Your task to perform on an android device: Open Youtube and go to "Your channel" Image 0: 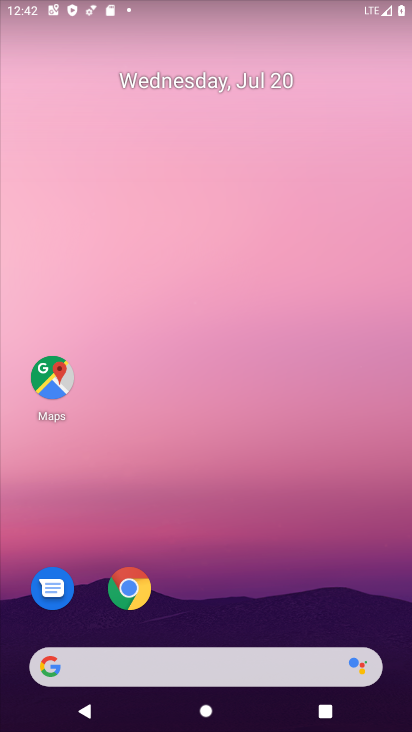
Step 0: drag from (369, 534) to (357, 188)
Your task to perform on an android device: Open Youtube and go to "Your channel" Image 1: 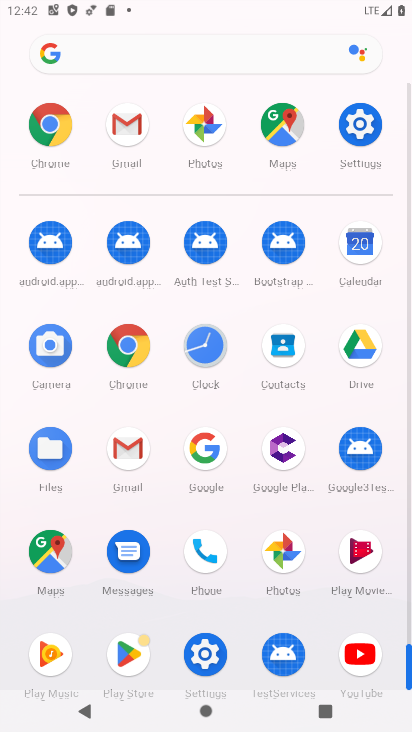
Step 1: click (367, 672)
Your task to perform on an android device: Open Youtube and go to "Your channel" Image 2: 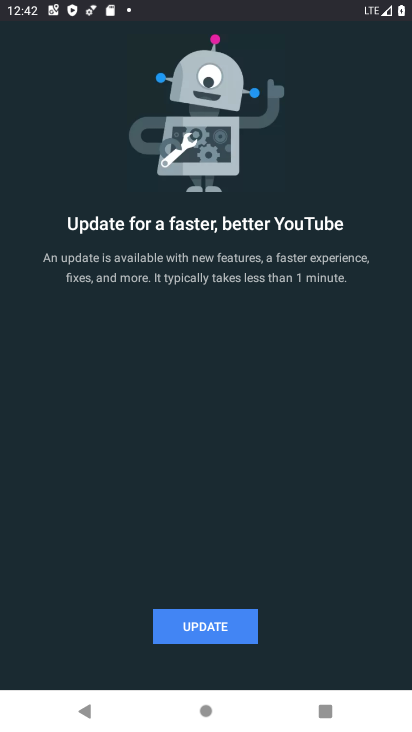
Step 2: click (190, 618)
Your task to perform on an android device: Open Youtube and go to "Your channel" Image 3: 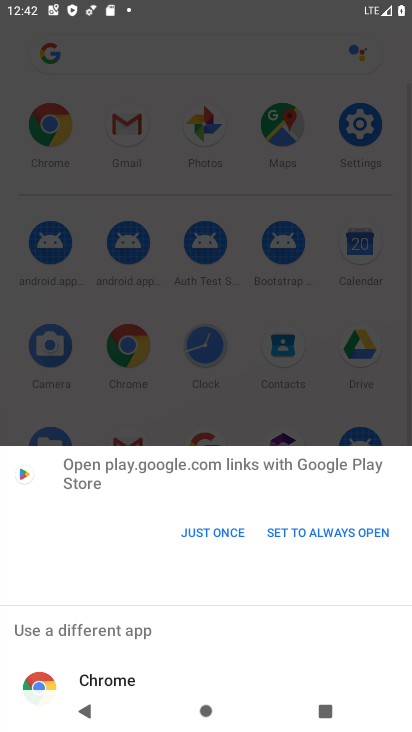
Step 3: click (191, 533)
Your task to perform on an android device: Open Youtube and go to "Your channel" Image 4: 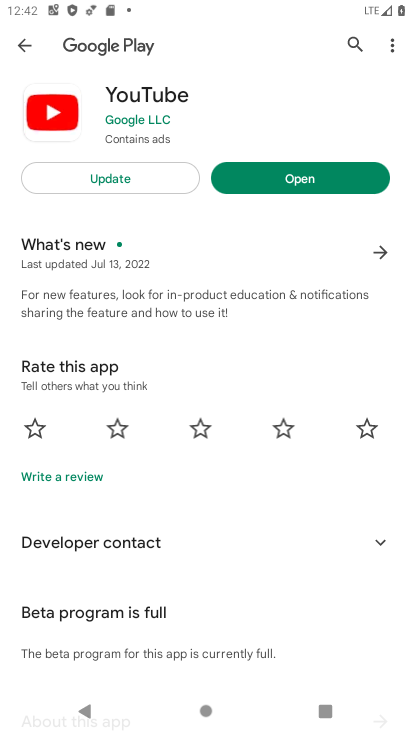
Step 4: click (125, 175)
Your task to perform on an android device: Open Youtube and go to "Your channel" Image 5: 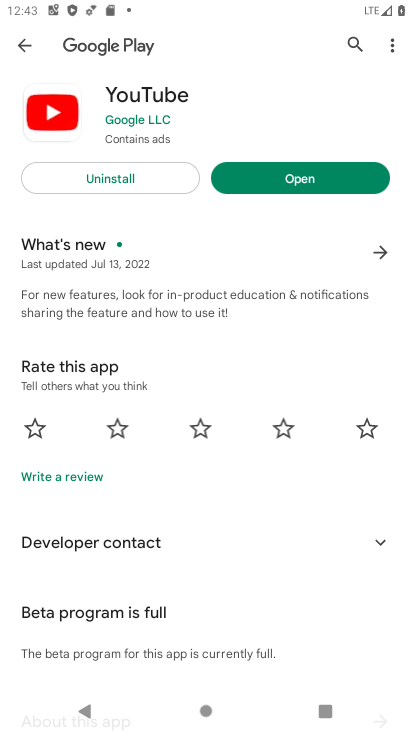
Step 5: click (310, 180)
Your task to perform on an android device: Open Youtube and go to "Your channel" Image 6: 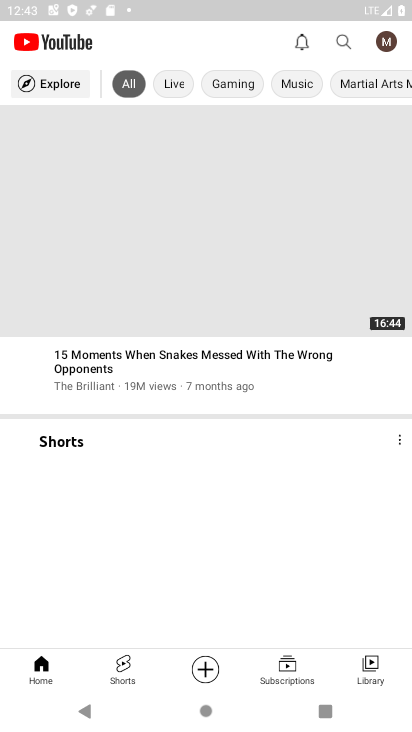
Step 6: click (389, 38)
Your task to perform on an android device: Open Youtube and go to "Your channel" Image 7: 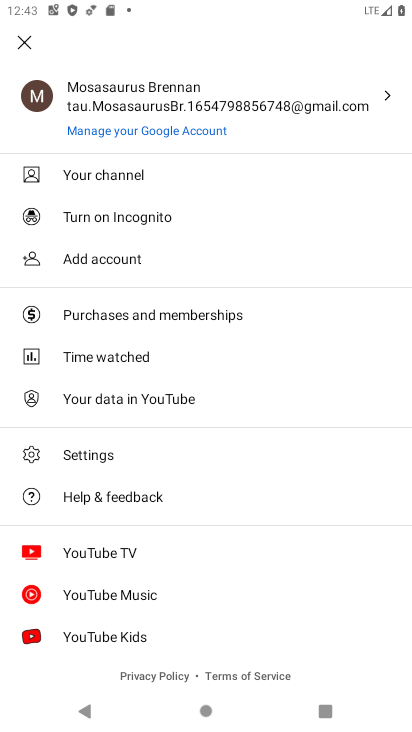
Step 7: click (64, 175)
Your task to perform on an android device: Open Youtube and go to "Your channel" Image 8: 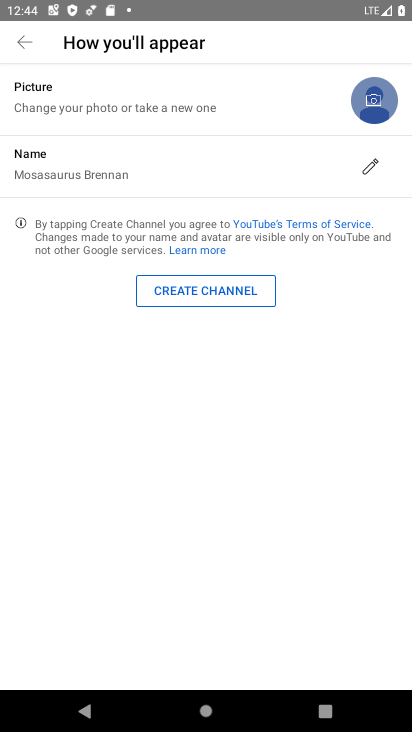
Step 8: task complete